Your task to perform on an android device: open app "Venmo" (install if not already installed) and go to login screen Image 0: 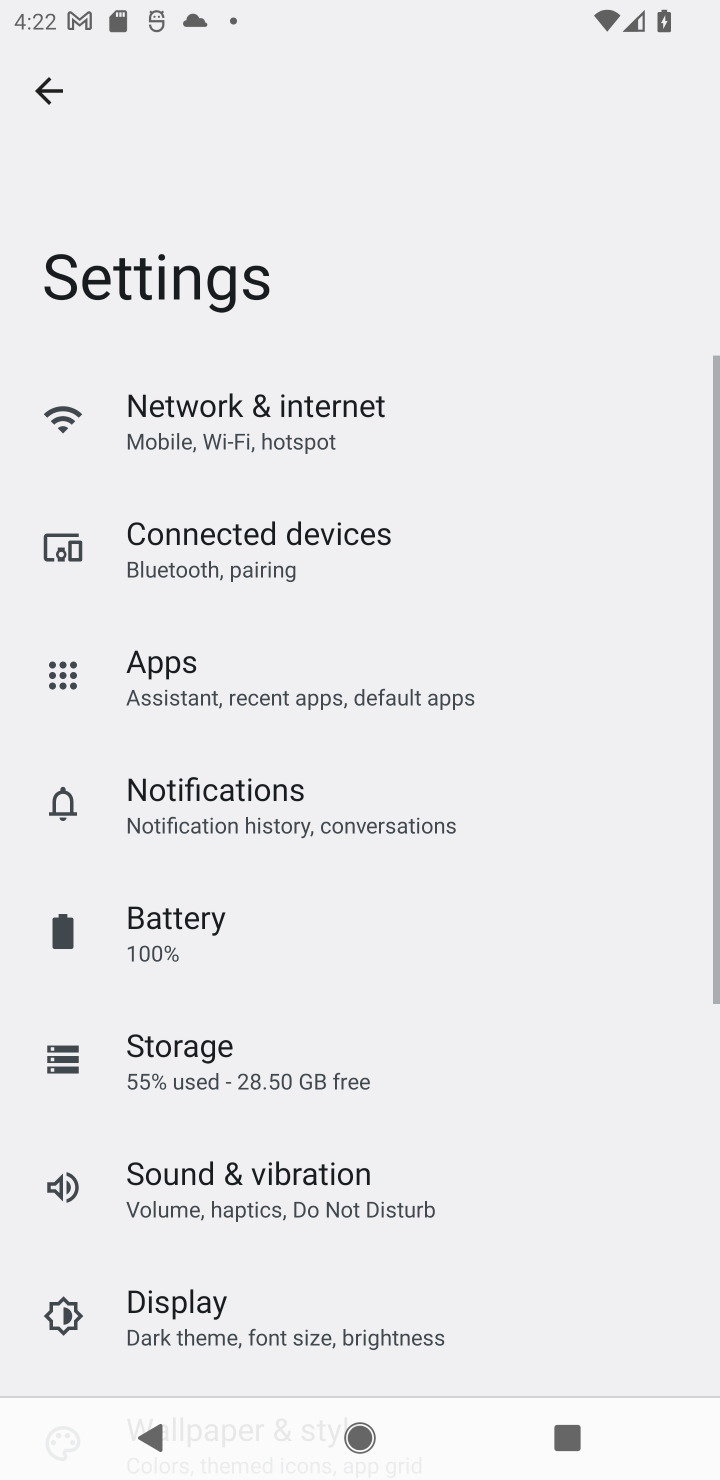
Step 0: press home button
Your task to perform on an android device: open app "Venmo" (install if not already installed) and go to login screen Image 1: 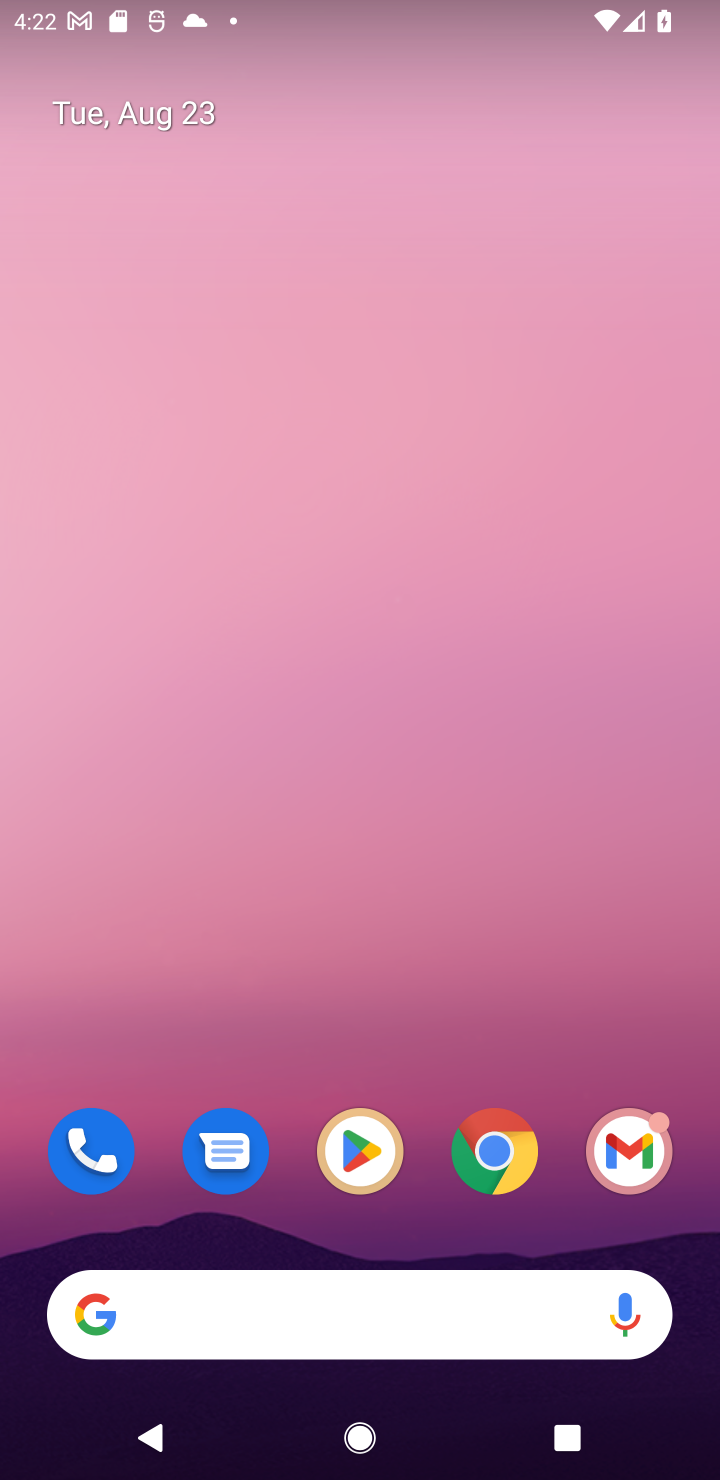
Step 1: click (357, 1145)
Your task to perform on an android device: open app "Venmo" (install if not already installed) and go to login screen Image 2: 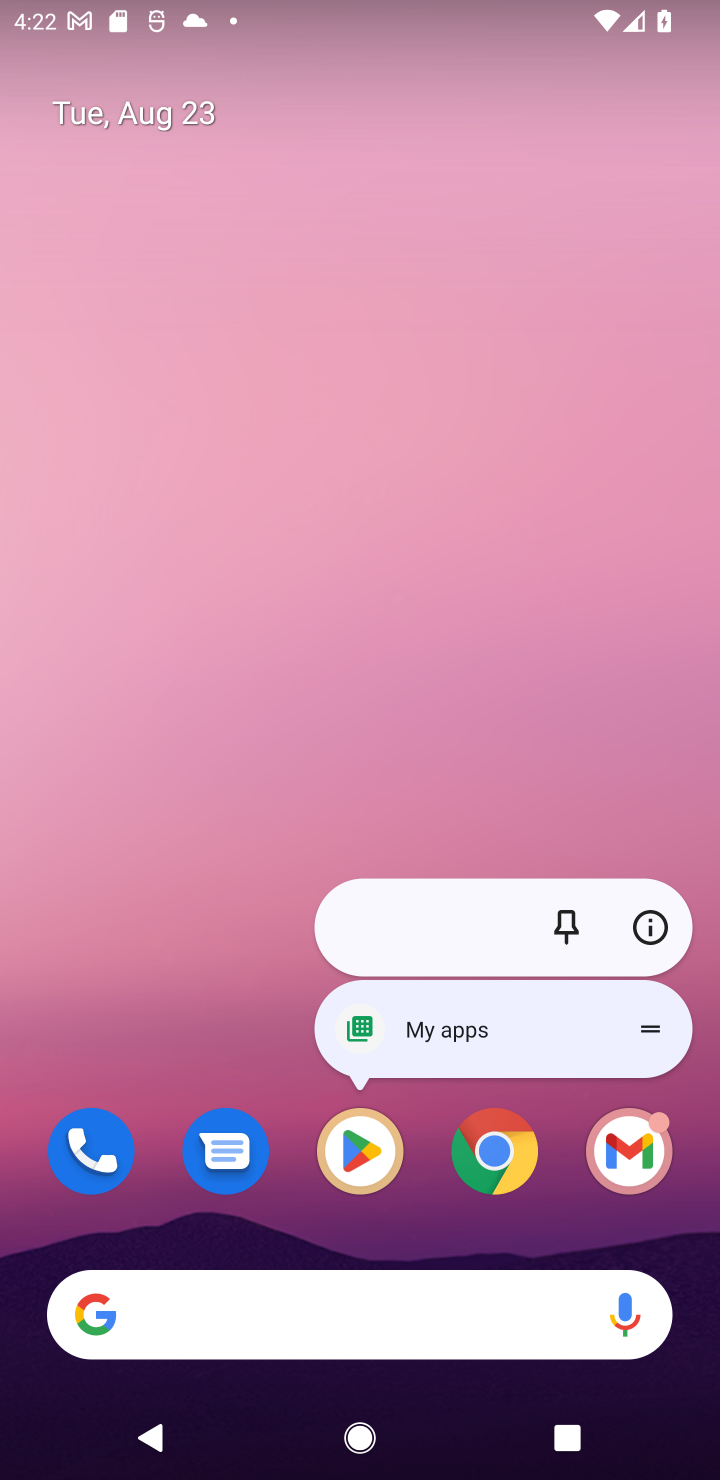
Step 2: click (355, 1145)
Your task to perform on an android device: open app "Venmo" (install if not already installed) and go to login screen Image 3: 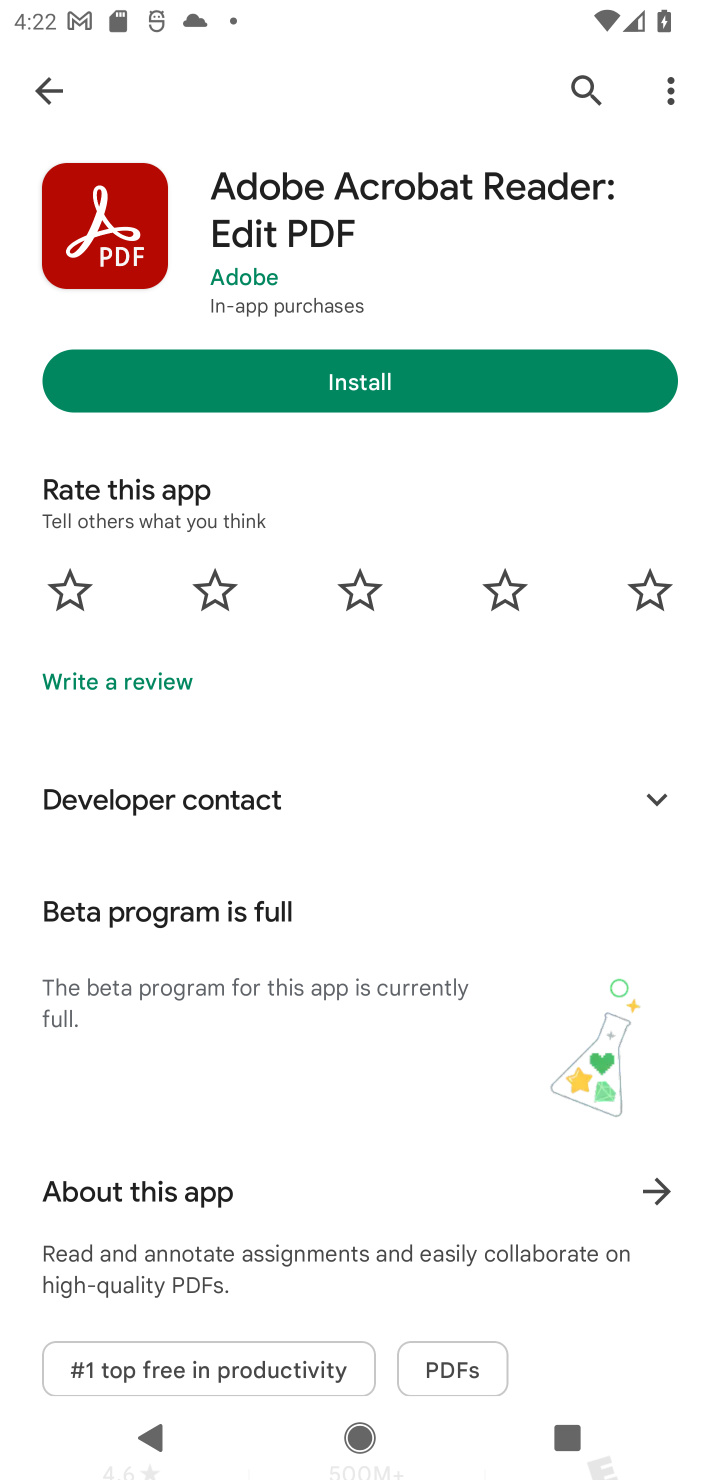
Step 3: click (579, 83)
Your task to perform on an android device: open app "Venmo" (install if not already installed) and go to login screen Image 4: 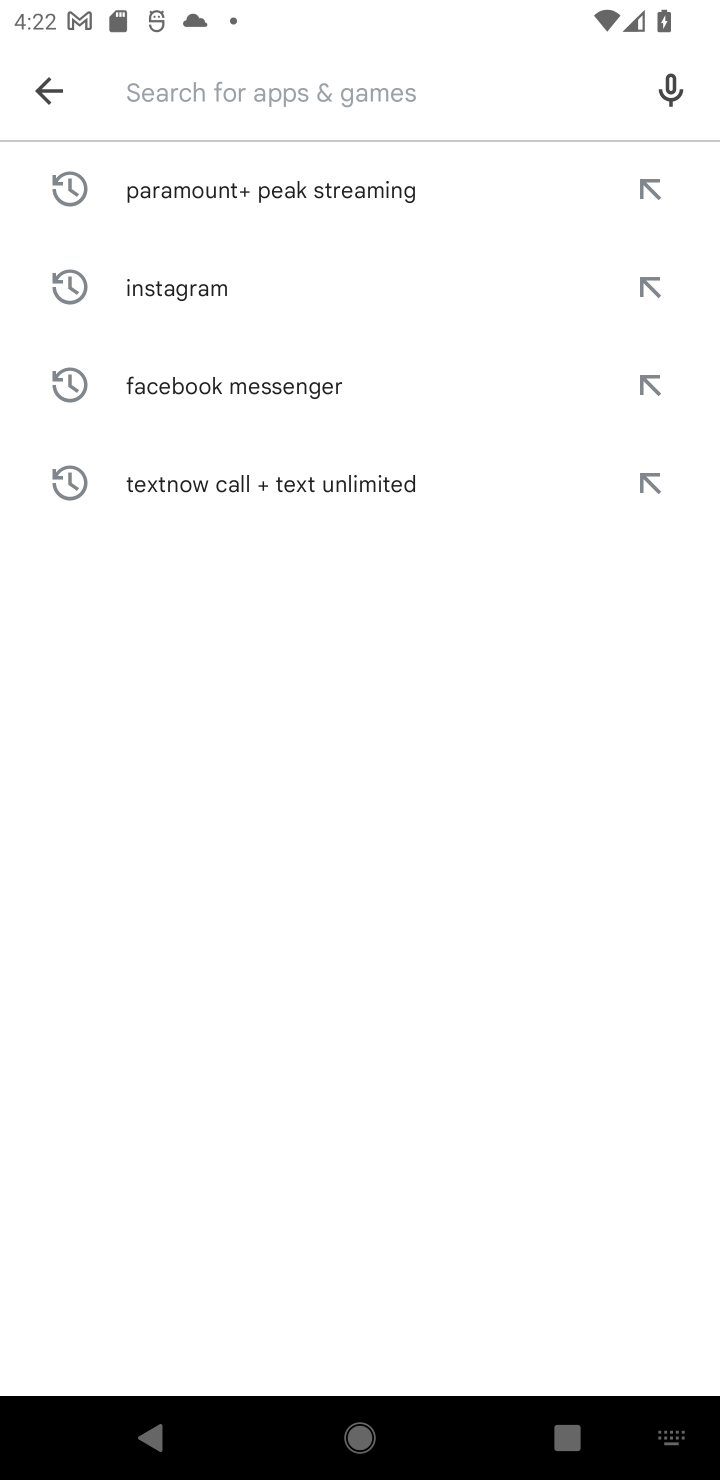
Step 4: type "Venmo"
Your task to perform on an android device: open app "Venmo" (install if not already installed) and go to login screen Image 5: 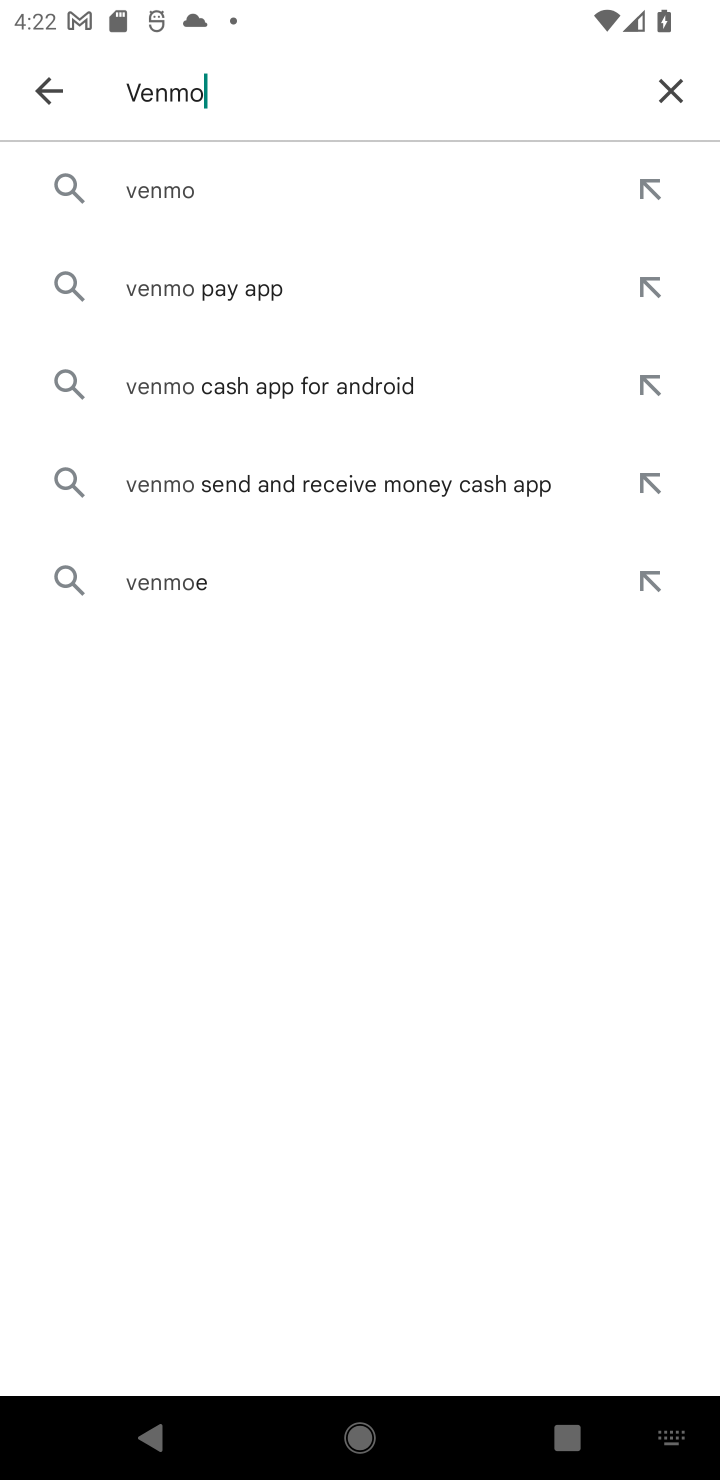
Step 5: click (171, 194)
Your task to perform on an android device: open app "Venmo" (install if not already installed) and go to login screen Image 6: 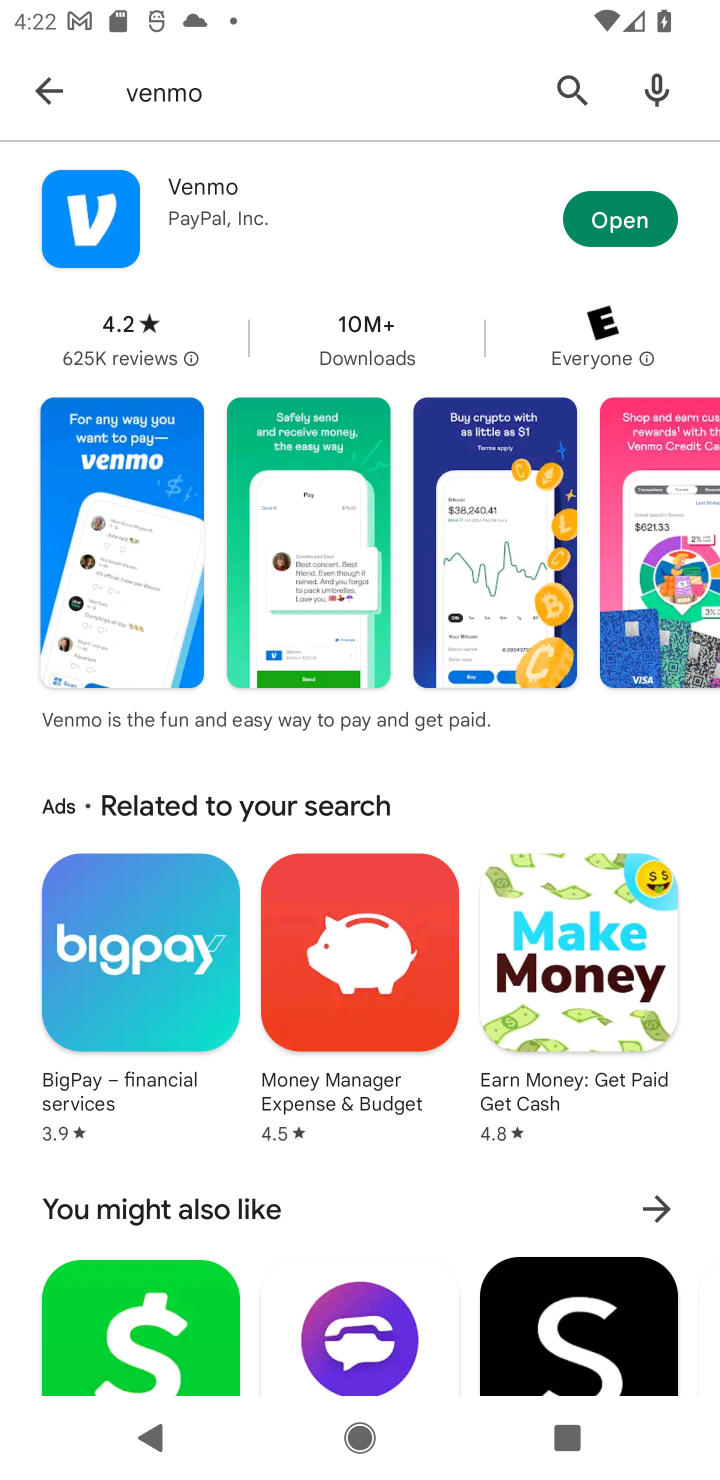
Step 6: click (641, 216)
Your task to perform on an android device: open app "Venmo" (install if not already installed) and go to login screen Image 7: 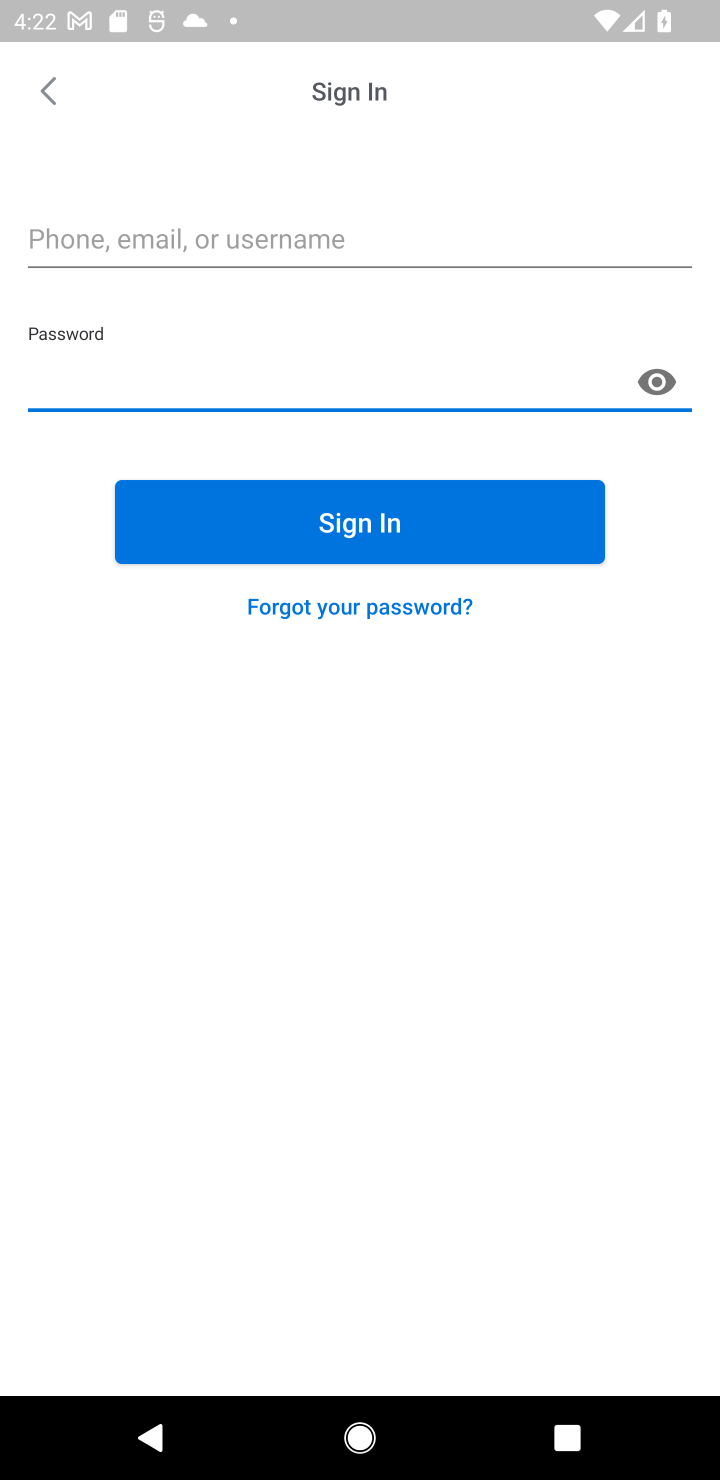
Step 7: task complete